Your task to perform on an android device: install app "Roku - Official Remote Control" Image 0: 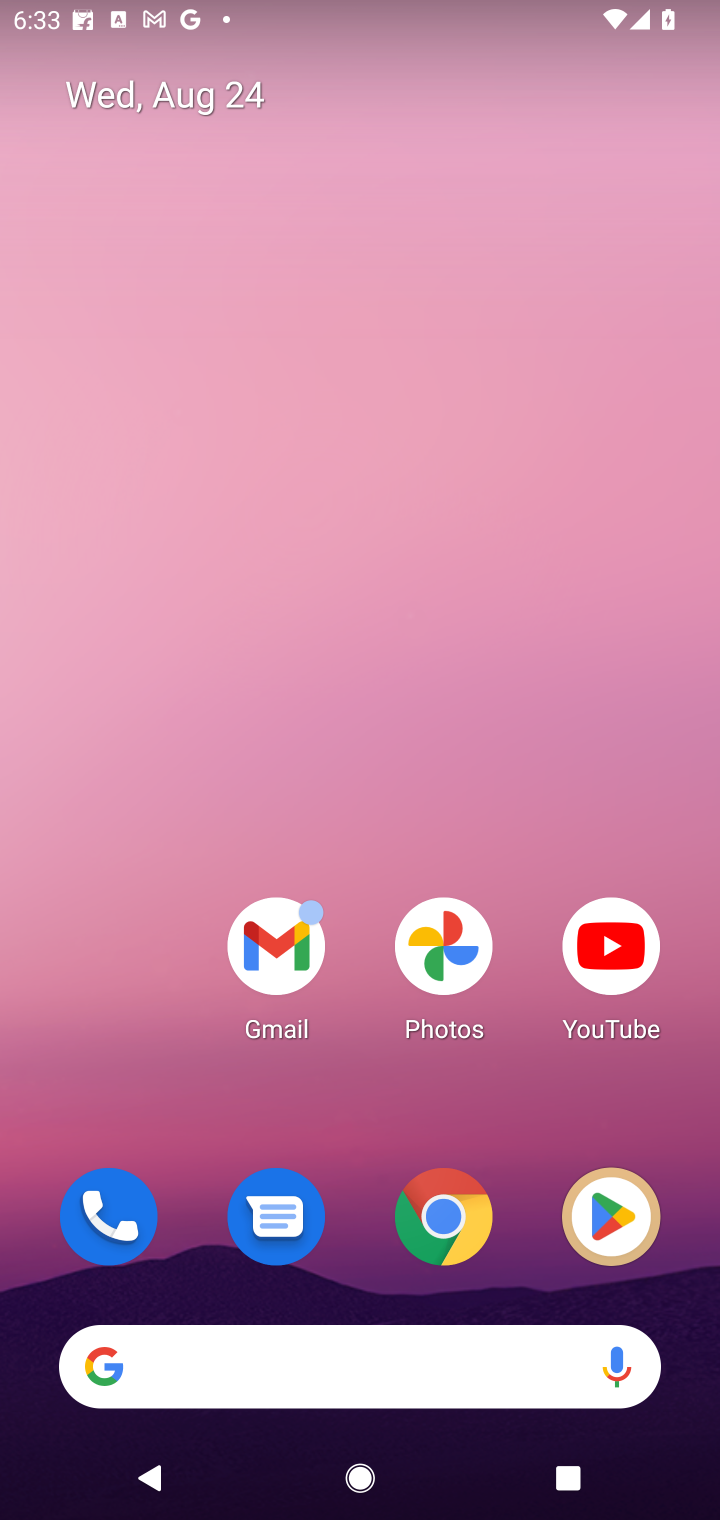
Step 0: click (613, 1178)
Your task to perform on an android device: install app "Roku - Official Remote Control" Image 1: 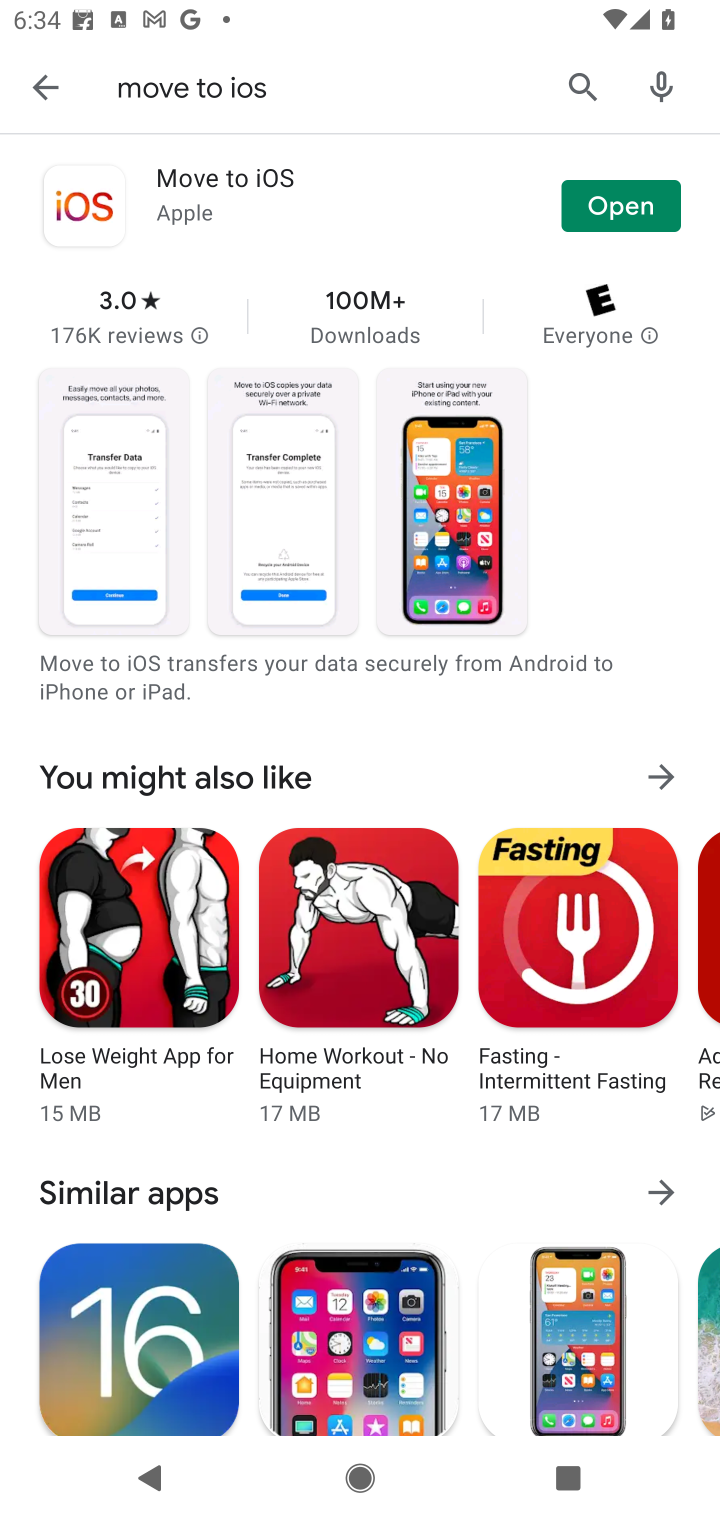
Step 1: click (568, 85)
Your task to perform on an android device: install app "Roku - Official Remote Control" Image 2: 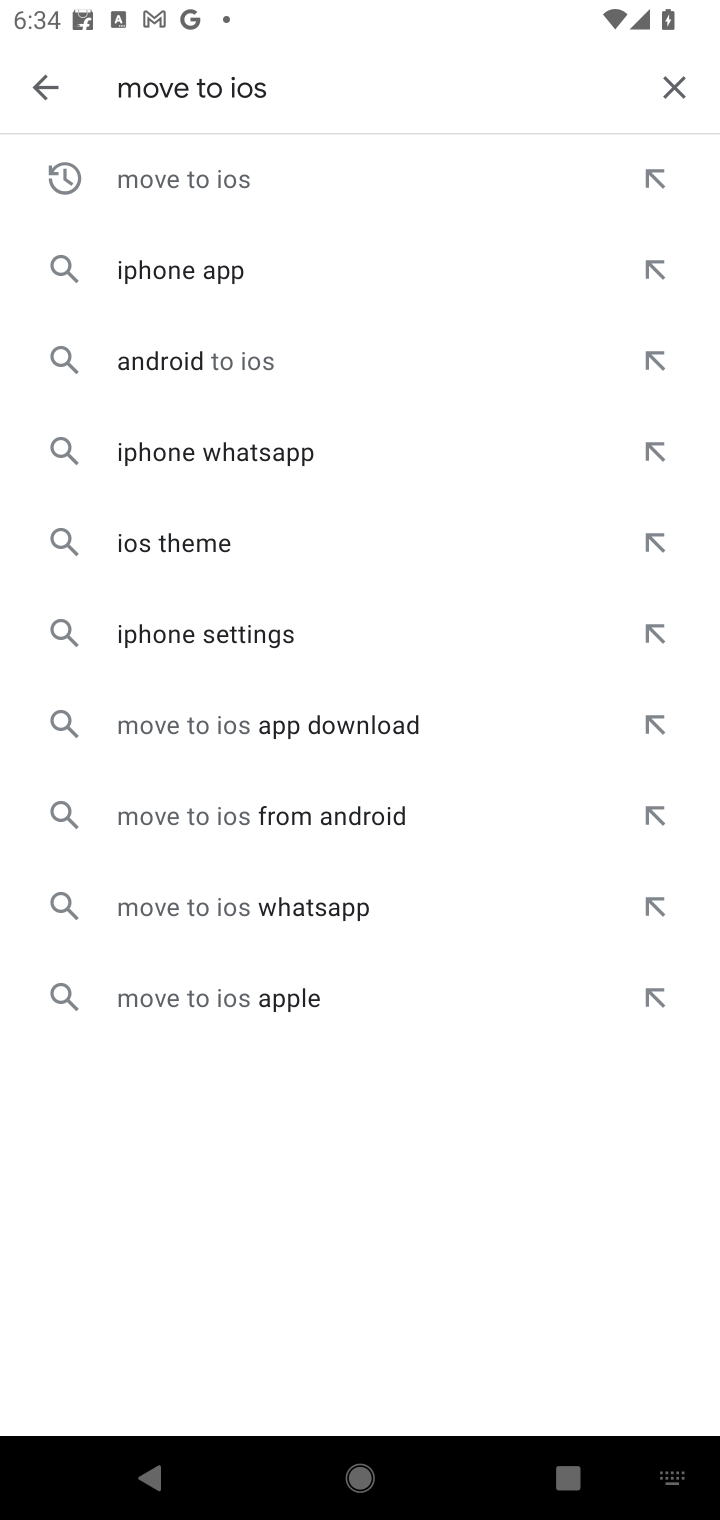
Step 2: click (671, 71)
Your task to perform on an android device: install app "Roku - Official Remote Control" Image 3: 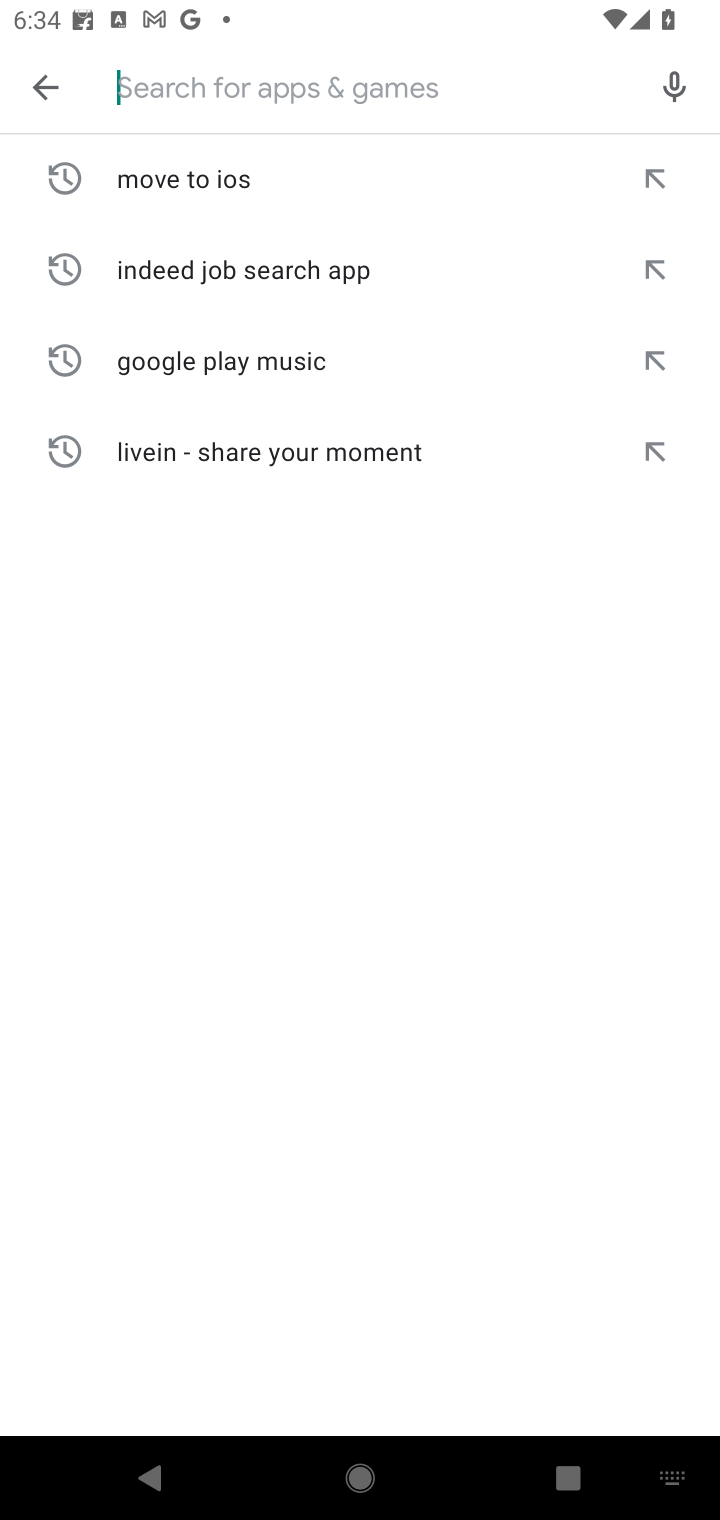
Step 3: type "Roku - Official Remote Control"
Your task to perform on an android device: install app "Roku - Official Remote Control" Image 4: 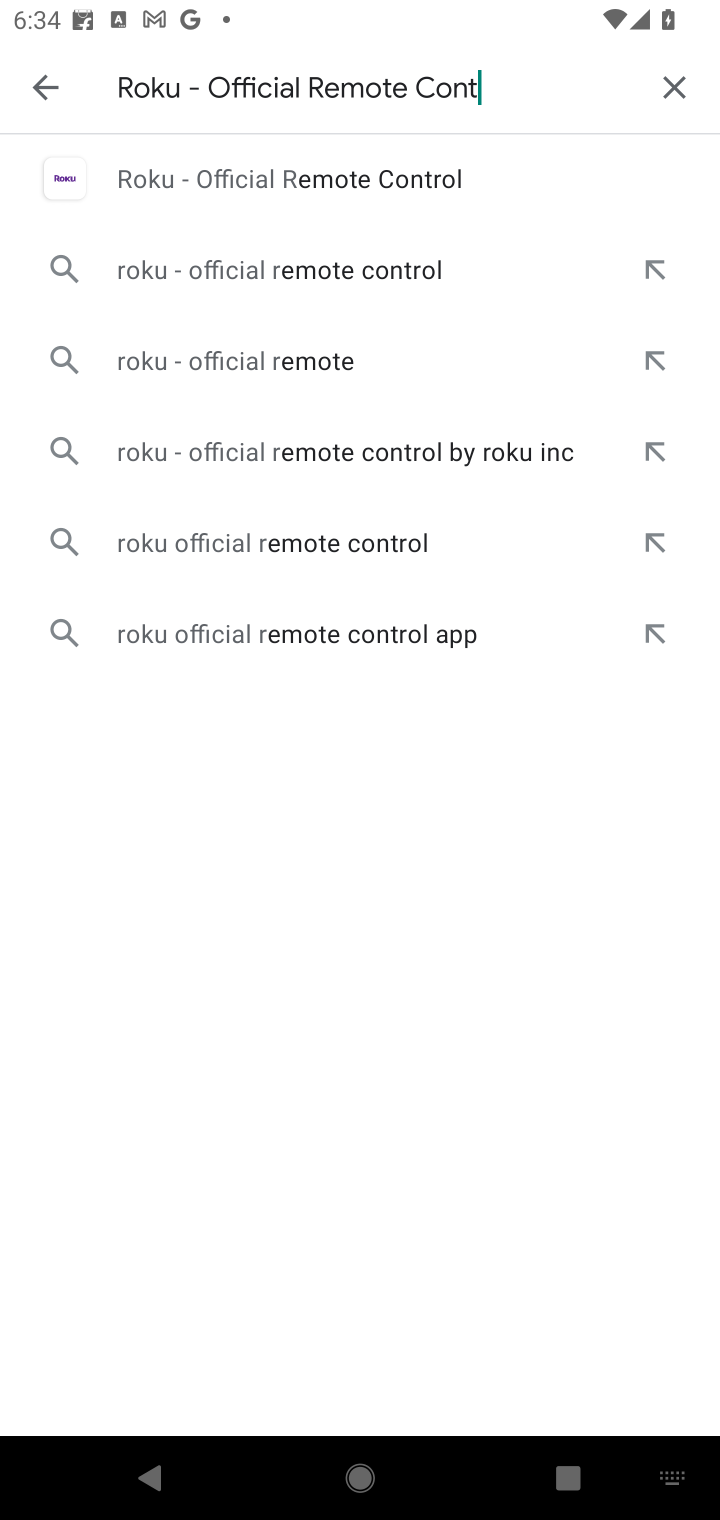
Step 4: type ""
Your task to perform on an android device: install app "Roku - Official Remote Control" Image 5: 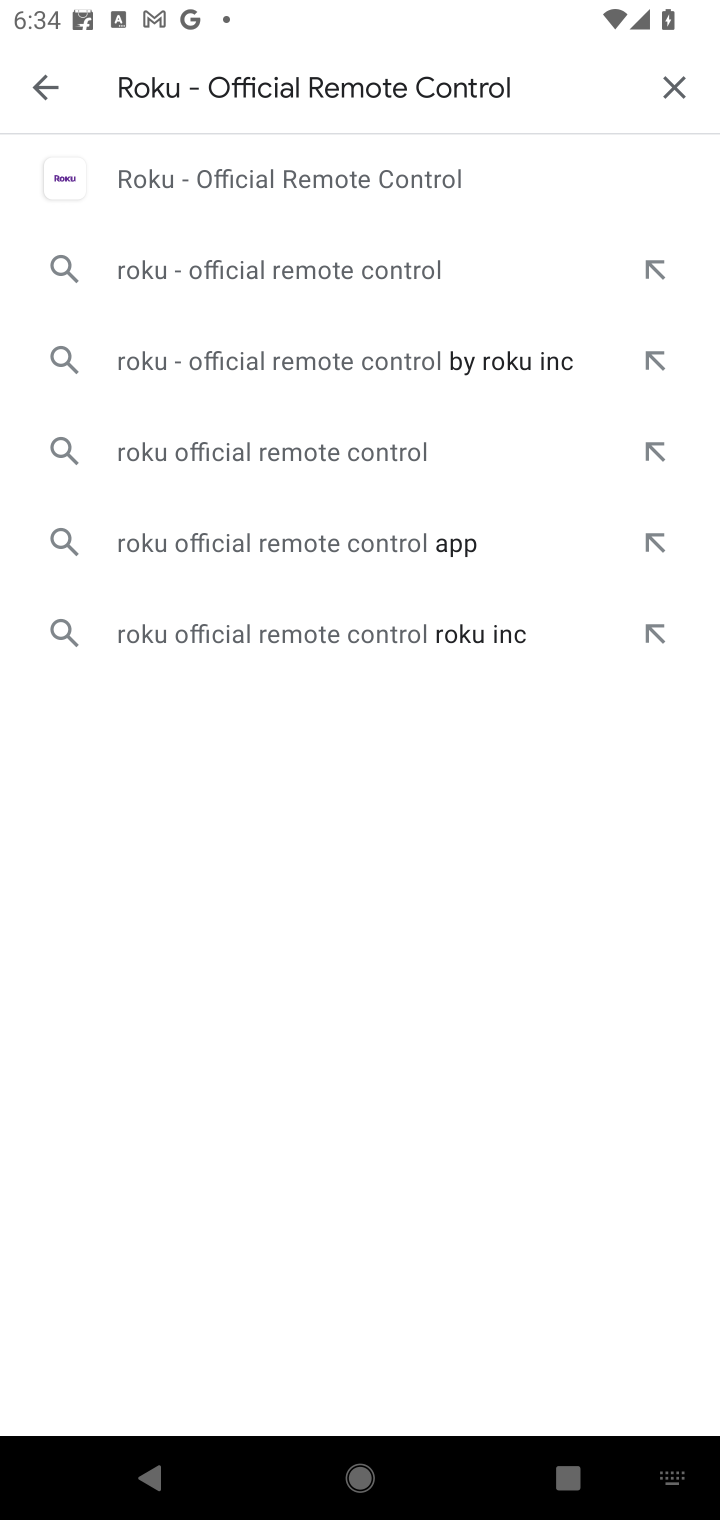
Step 5: click (446, 183)
Your task to perform on an android device: install app "Roku - Official Remote Control" Image 6: 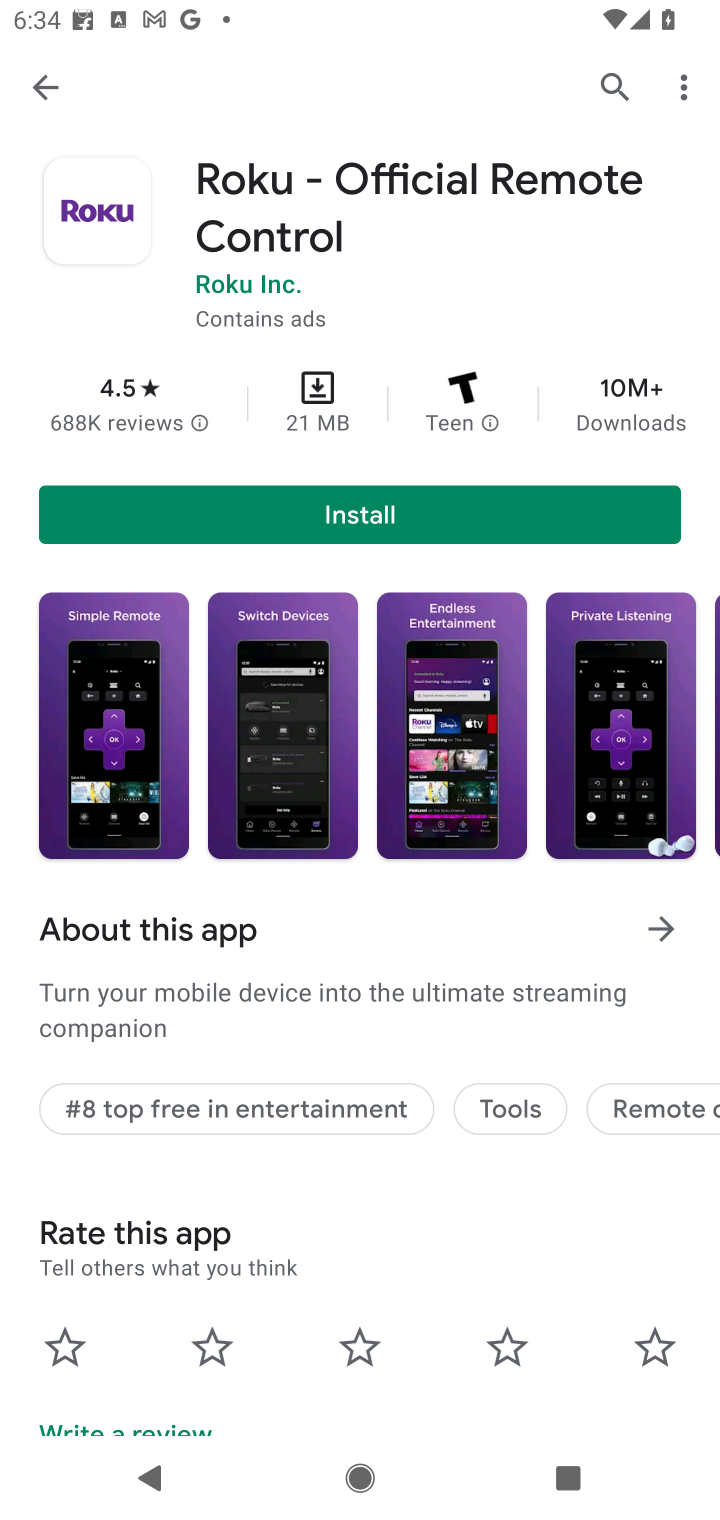
Step 6: click (398, 534)
Your task to perform on an android device: install app "Roku - Official Remote Control" Image 7: 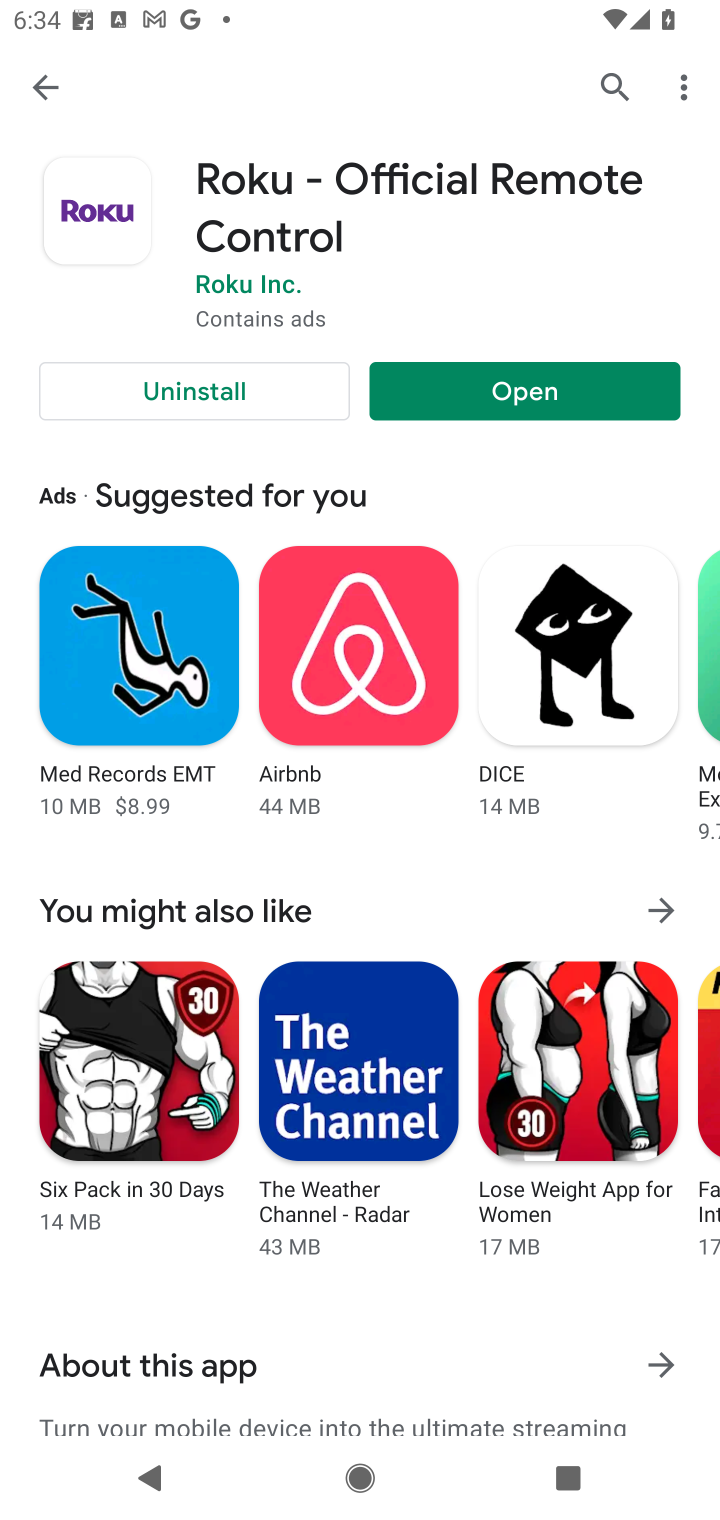
Step 7: task complete